Your task to perform on an android device: change the clock display to digital Image 0: 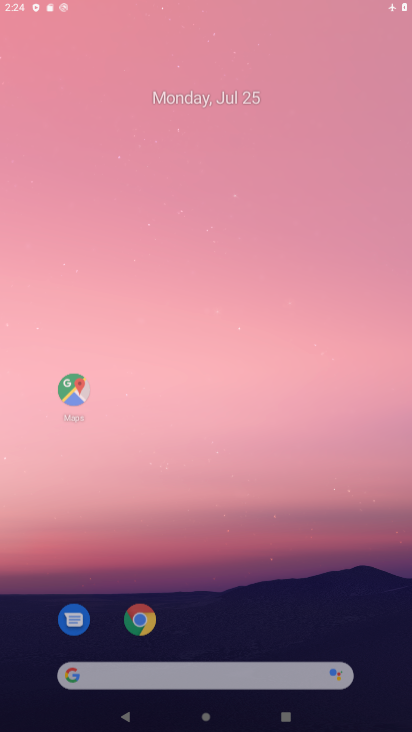
Step 0: drag from (180, 169) to (287, 10)
Your task to perform on an android device: change the clock display to digital Image 1: 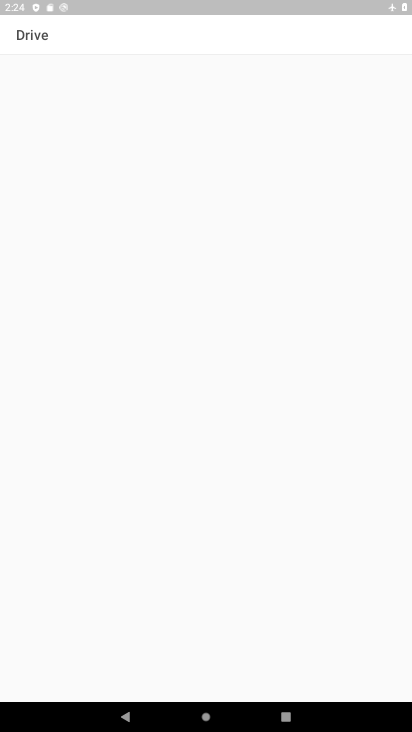
Step 1: drag from (341, 423) to (324, 75)
Your task to perform on an android device: change the clock display to digital Image 2: 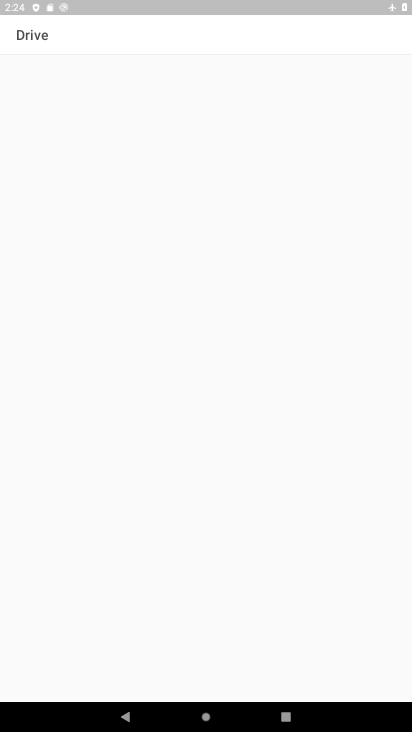
Step 2: drag from (322, 424) to (268, 62)
Your task to perform on an android device: change the clock display to digital Image 3: 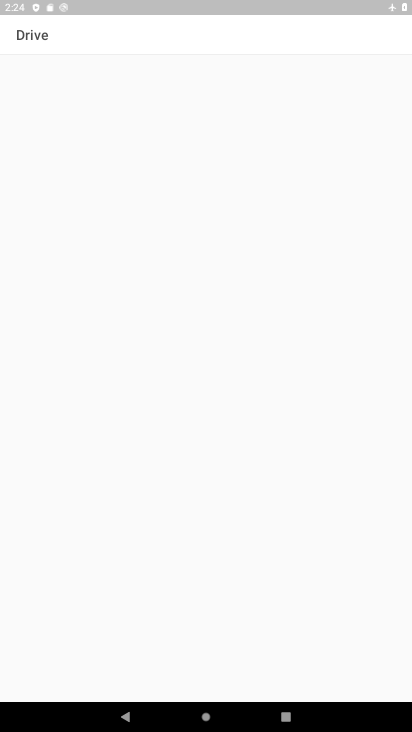
Step 3: drag from (325, 336) to (319, 91)
Your task to perform on an android device: change the clock display to digital Image 4: 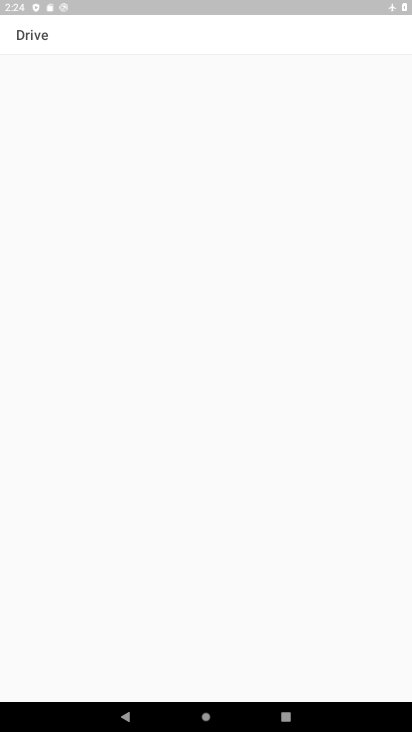
Step 4: press back button
Your task to perform on an android device: change the clock display to digital Image 5: 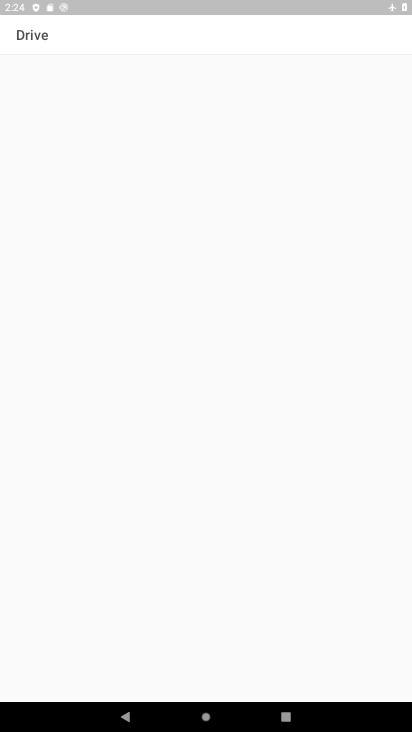
Step 5: click (124, 59)
Your task to perform on an android device: change the clock display to digital Image 6: 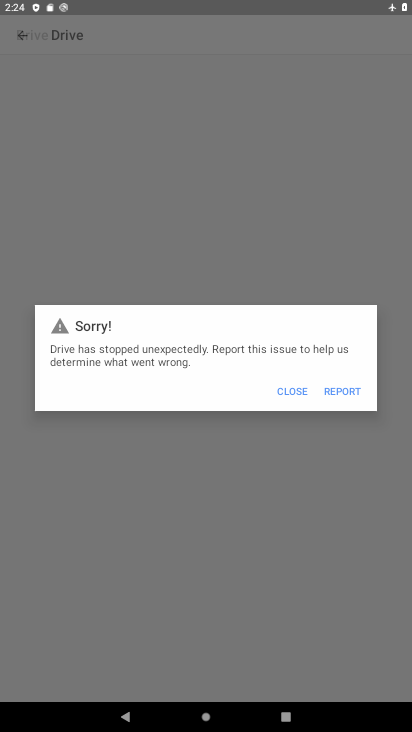
Step 6: press back button
Your task to perform on an android device: change the clock display to digital Image 7: 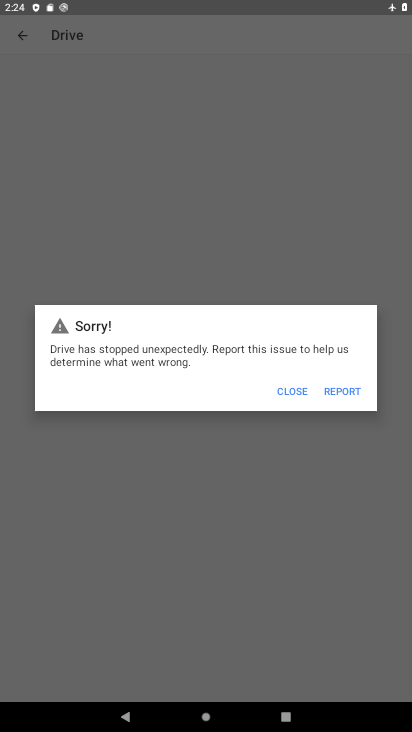
Step 7: press home button
Your task to perform on an android device: change the clock display to digital Image 8: 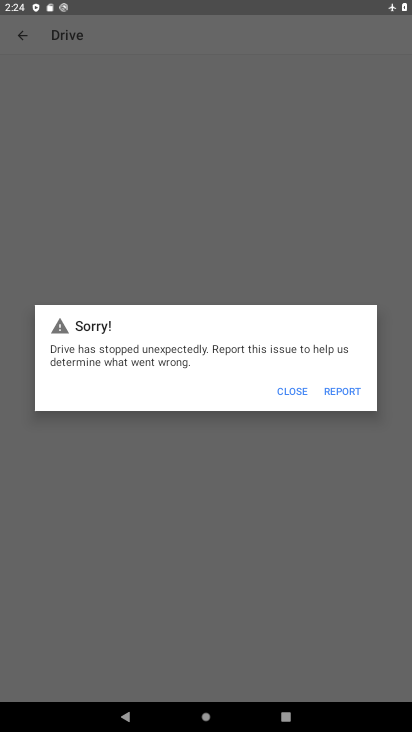
Step 8: click (168, 188)
Your task to perform on an android device: change the clock display to digital Image 9: 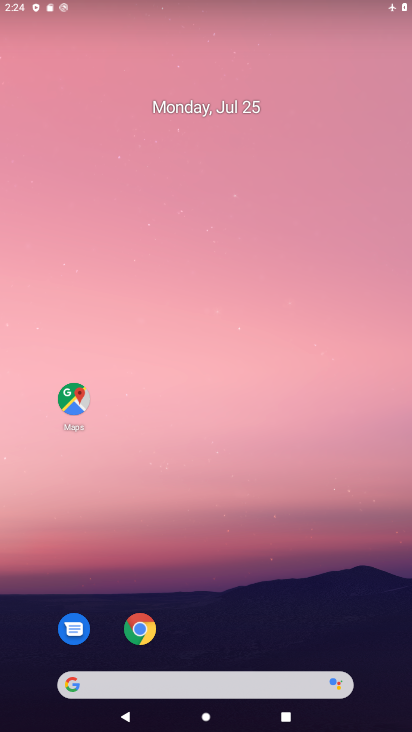
Step 9: click (297, 393)
Your task to perform on an android device: change the clock display to digital Image 10: 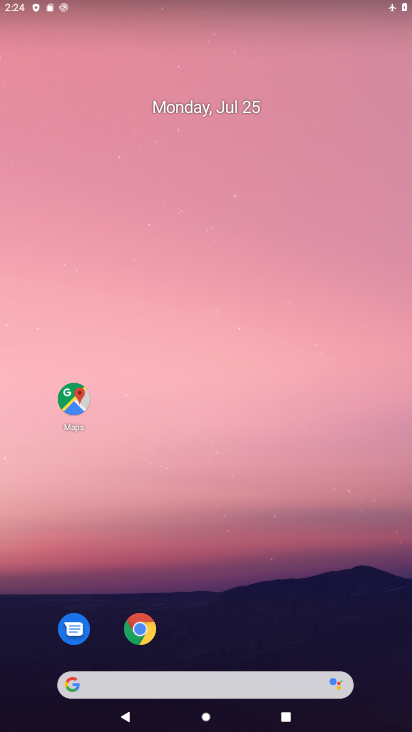
Step 10: drag from (235, 354) to (193, 160)
Your task to perform on an android device: change the clock display to digital Image 11: 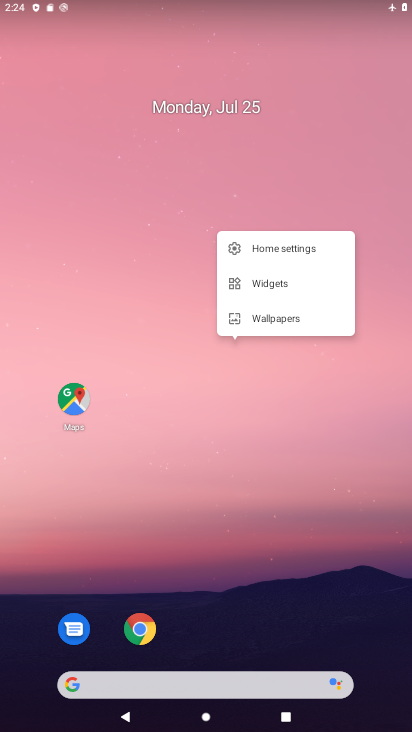
Step 11: drag from (176, 643) to (103, 130)
Your task to perform on an android device: change the clock display to digital Image 12: 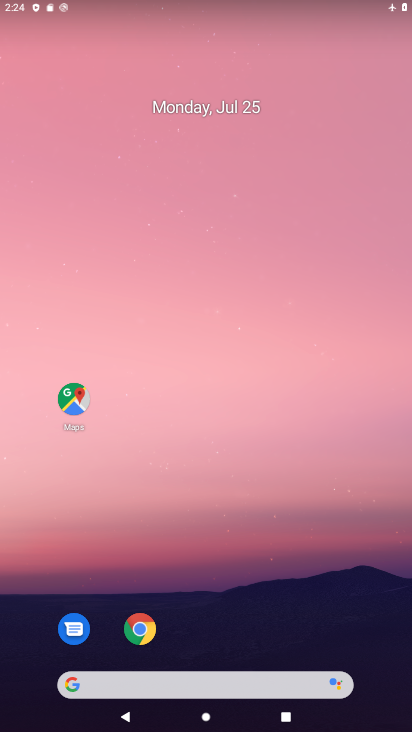
Step 12: drag from (186, 393) to (163, 159)
Your task to perform on an android device: change the clock display to digital Image 13: 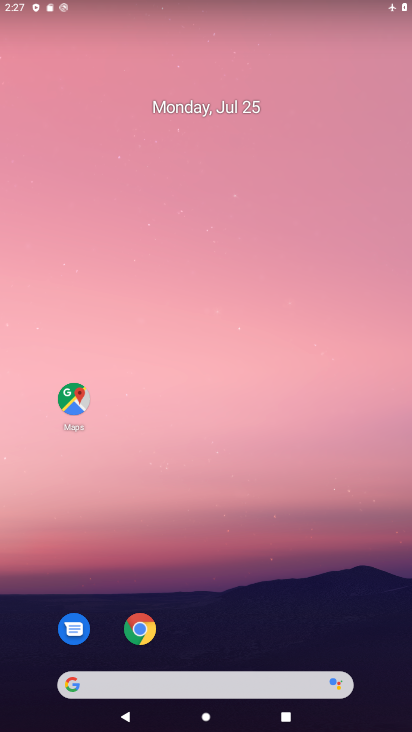
Step 13: drag from (207, 520) to (191, 220)
Your task to perform on an android device: change the clock display to digital Image 14: 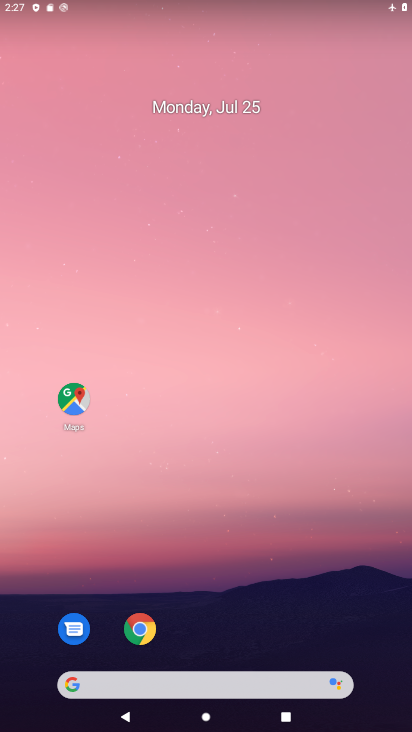
Step 14: drag from (253, 305) to (253, 213)
Your task to perform on an android device: change the clock display to digital Image 15: 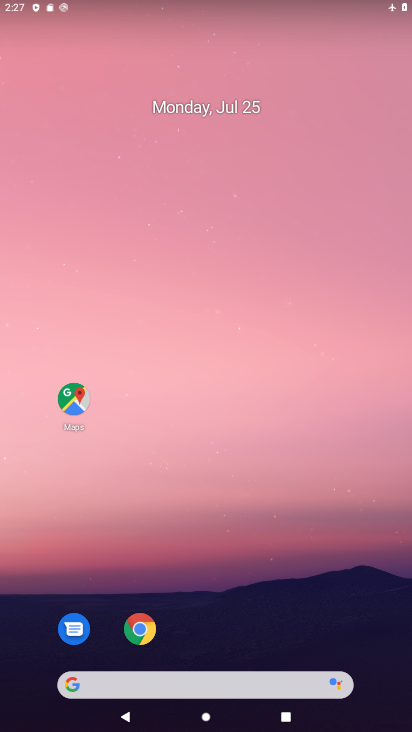
Step 15: drag from (210, 50) to (267, 140)
Your task to perform on an android device: change the clock display to digital Image 16: 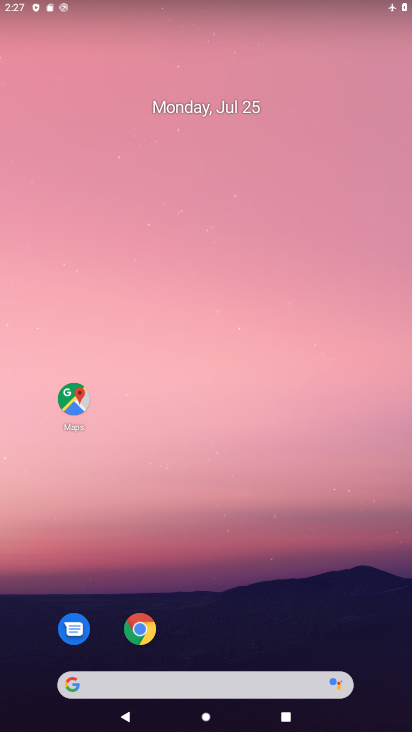
Step 16: drag from (242, 234) to (215, 17)
Your task to perform on an android device: change the clock display to digital Image 17: 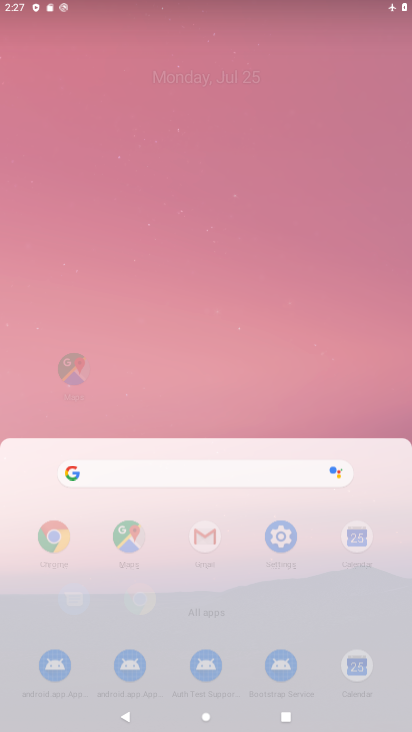
Step 17: drag from (226, 327) to (210, 14)
Your task to perform on an android device: change the clock display to digital Image 18: 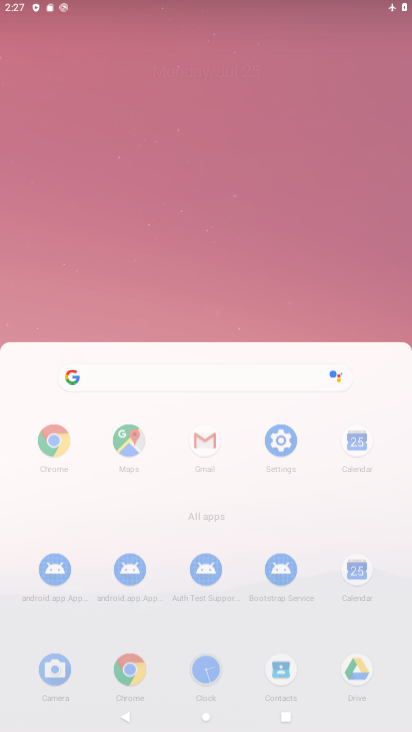
Step 18: drag from (294, 481) to (258, 66)
Your task to perform on an android device: change the clock display to digital Image 19: 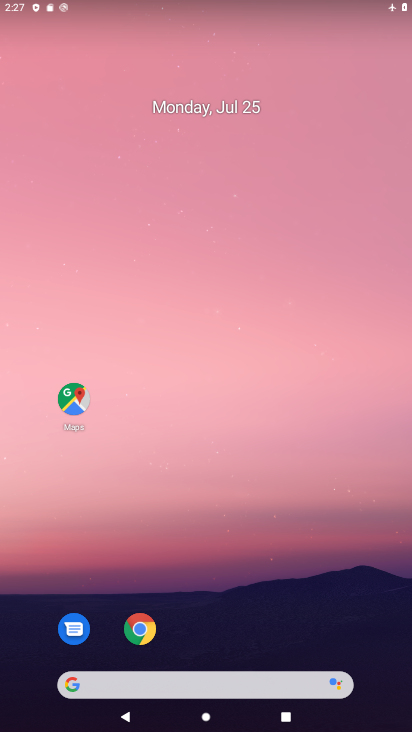
Step 19: drag from (296, 507) to (288, 149)
Your task to perform on an android device: change the clock display to digital Image 20: 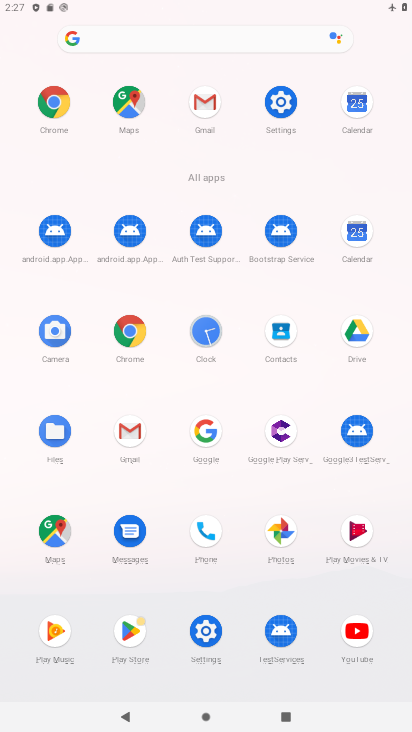
Step 20: drag from (176, 448) to (163, 176)
Your task to perform on an android device: change the clock display to digital Image 21: 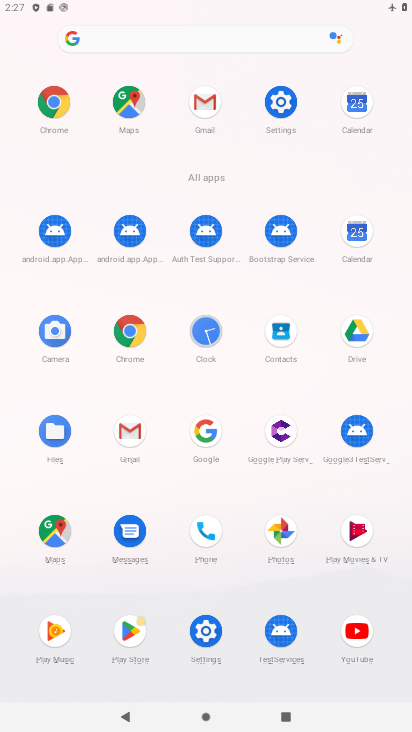
Step 21: click (209, 328)
Your task to perform on an android device: change the clock display to digital Image 22: 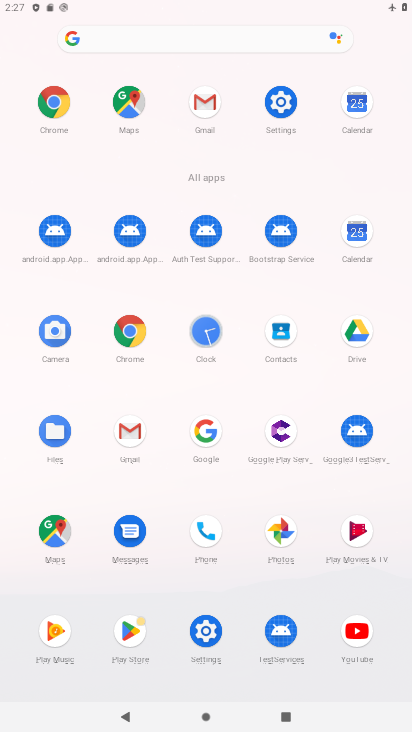
Step 22: click (206, 327)
Your task to perform on an android device: change the clock display to digital Image 23: 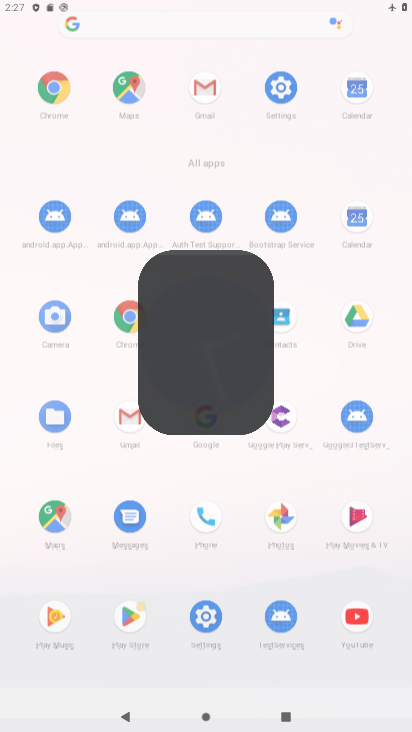
Step 23: click (206, 327)
Your task to perform on an android device: change the clock display to digital Image 24: 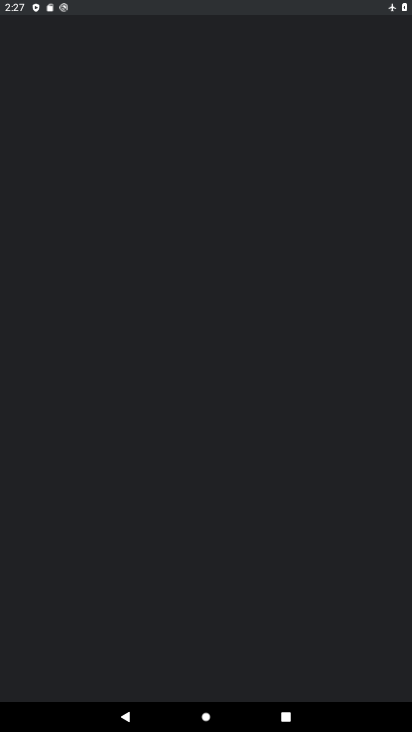
Step 24: click (207, 326)
Your task to perform on an android device: change the clock display to digital Image 25: 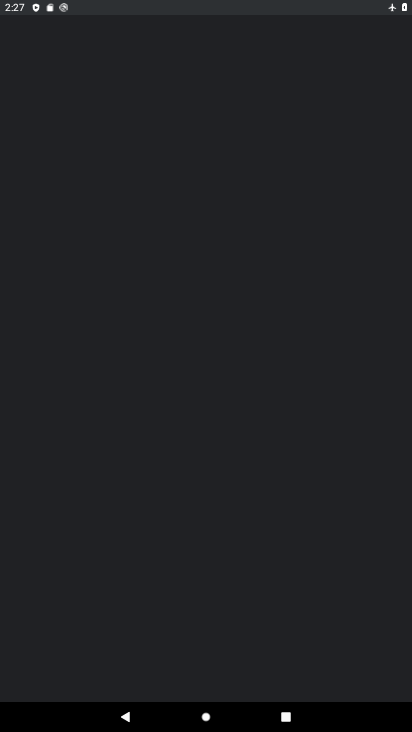
Step 25: click (207, 326)
Your task to perform on an android device: change the clock display to digital Image 26: 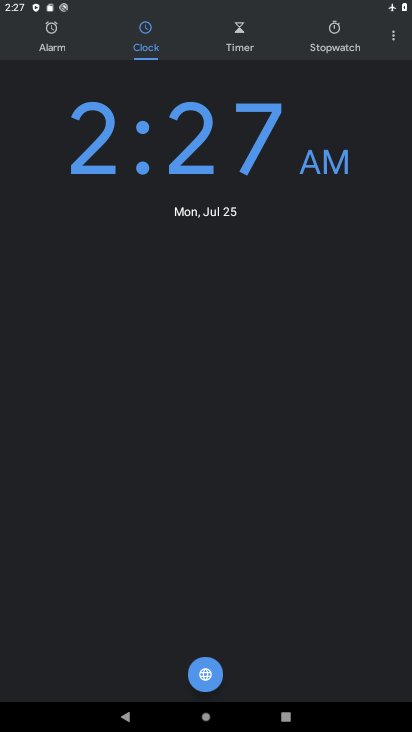
Step 26: click (387, 39)
Your task to perform on an android device: change the clock display to digital Image 27: 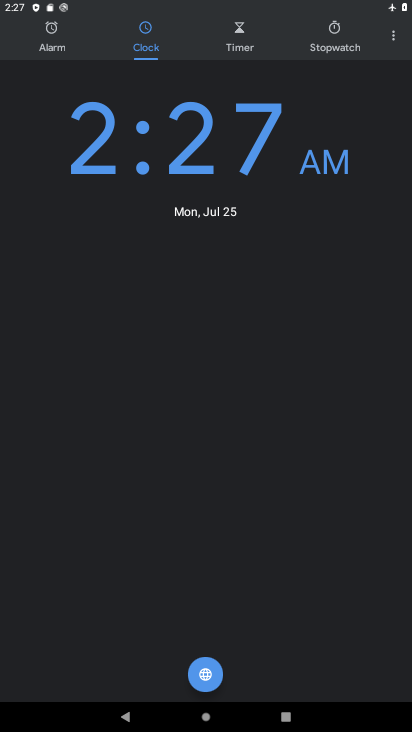
Step 27: click (388, 39)
Your task to perform on an android device: change the clock display to digital Image 28: 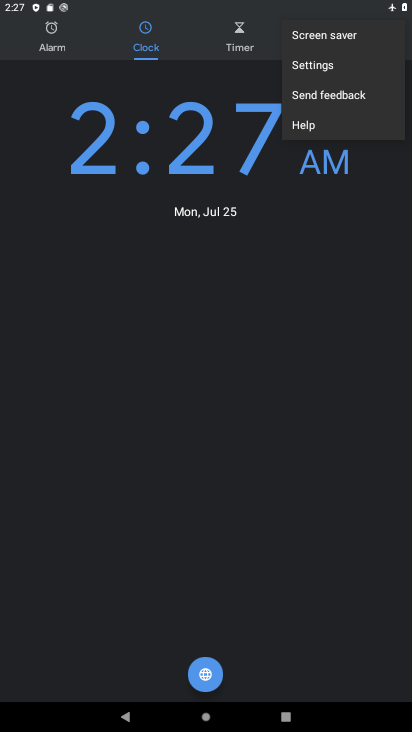
Step 28: click (324, 59)
Your task to perform on an android device: change the clock display to digital Image 29: 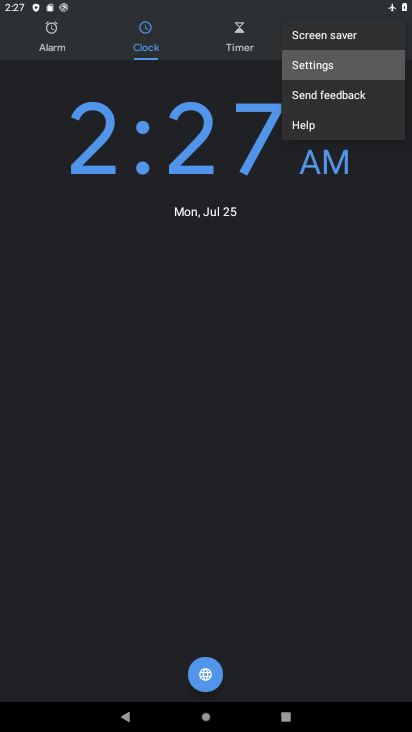
Step 29: click (328, 58)
Your task to perform on an android device: change the clock display to digital Image 30: 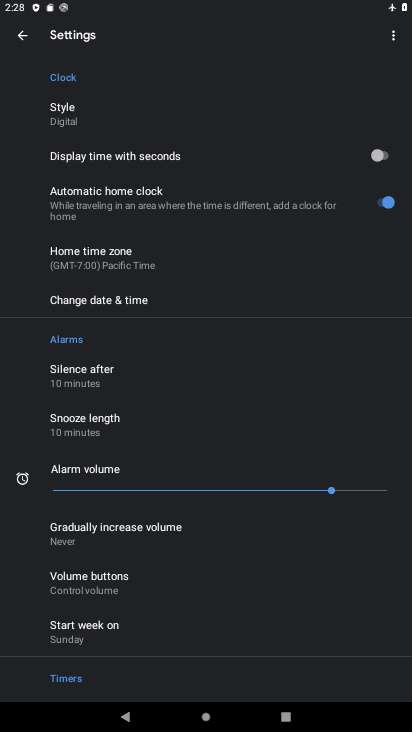
Step 30: click (71, 119)
Your task to perform on an android device: change the clock display to digital Image 31: 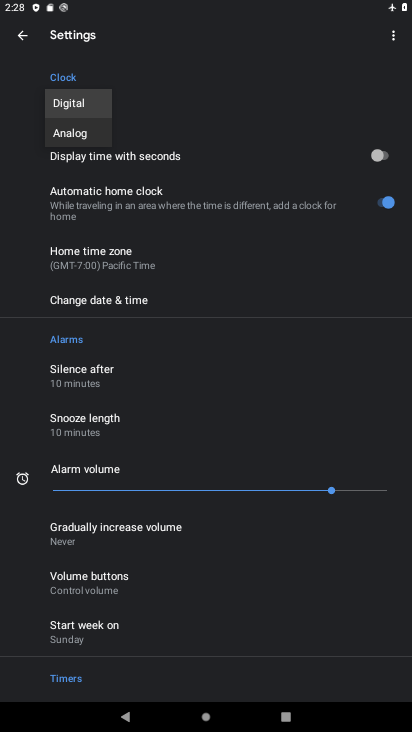
Step 31: click (71, 117)
Your task to perform on an android device: change the clock display to digital Image 32: 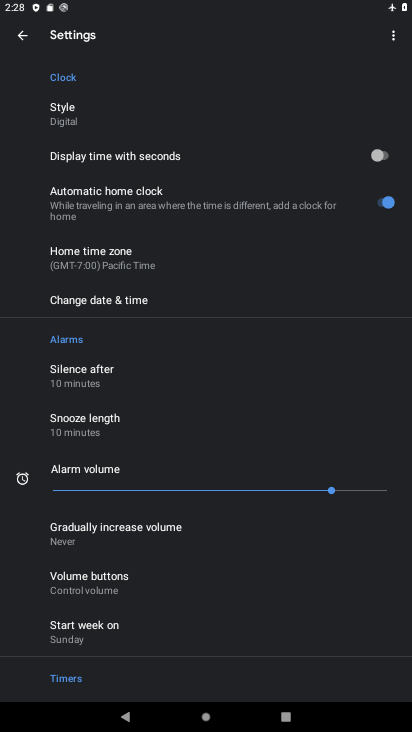
Step 32: task complete